Your task to perform on an android device: Set the phone to "Do not disturb". Image 0: 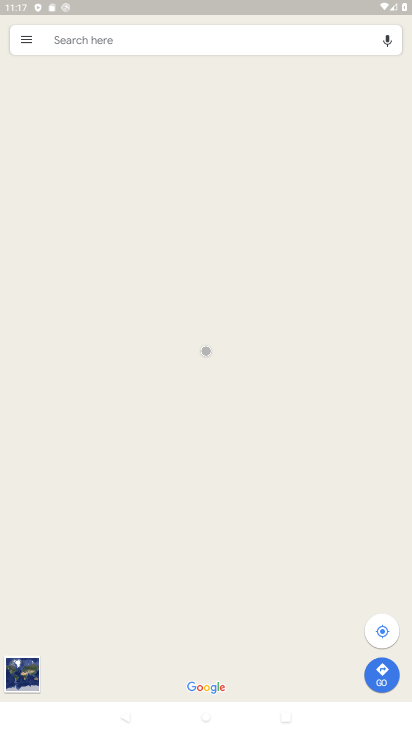
Step 0: drag from (211, 8) to (214, 543)
Your task to perform on an android device: Set the phone to "Do not disturb". Image 1: 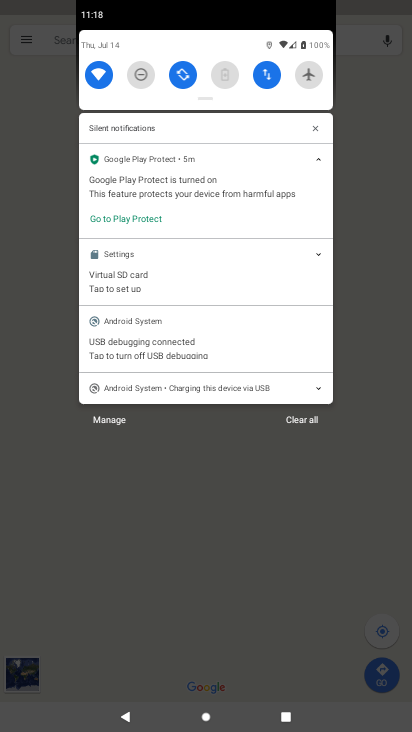
Step 1: click (134, 71)
Your task to perform on an android device: Set the phone to "Do not disturb". Image 2: 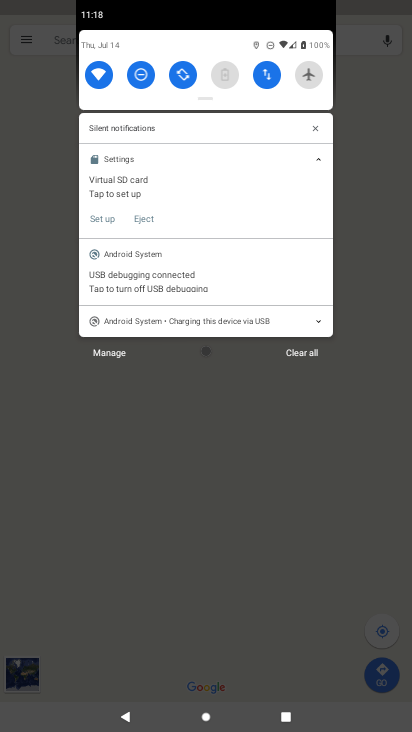
Step 2: task complete